Your task to perform on an android device: Open internet settings Image 0: 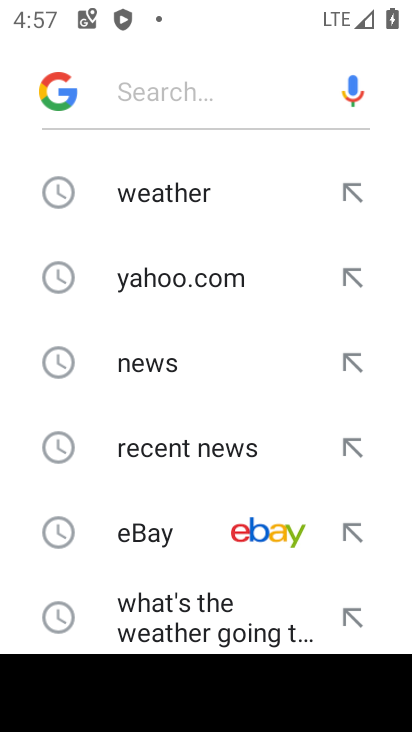
Step 0: press home button
Your task to perform on an android device: Open internet settings Image 1: 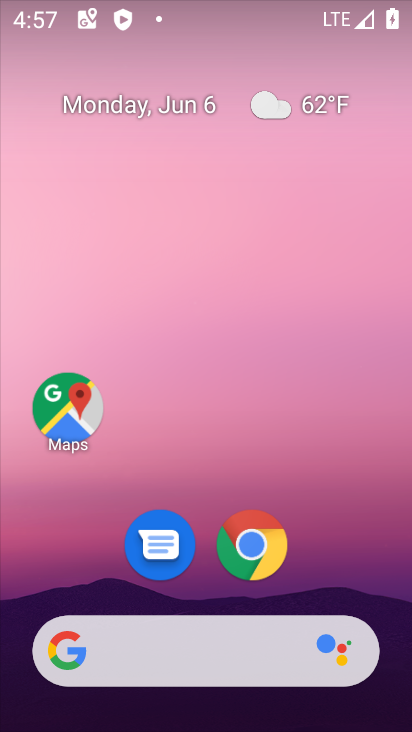
Step 1: drag from (207, 696) to (209, 99)
Your task to perform on an android device: Open internet settings Image 2: 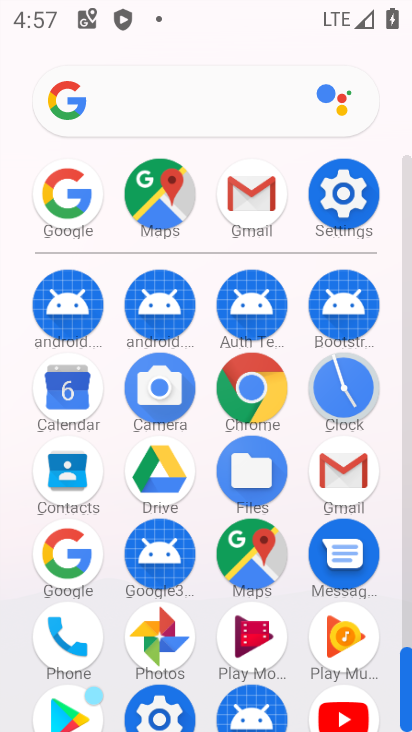
Step 2: click (354, 191)
Your task to perform on an android device: Open internet settings Image 3: 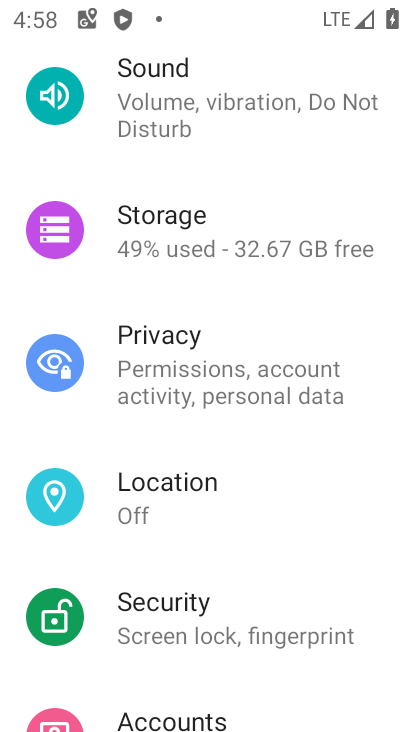
Step 3: drag from (171, 180) to (199, 596)
Your task to perform on an android device: Open internet settings Image 4: 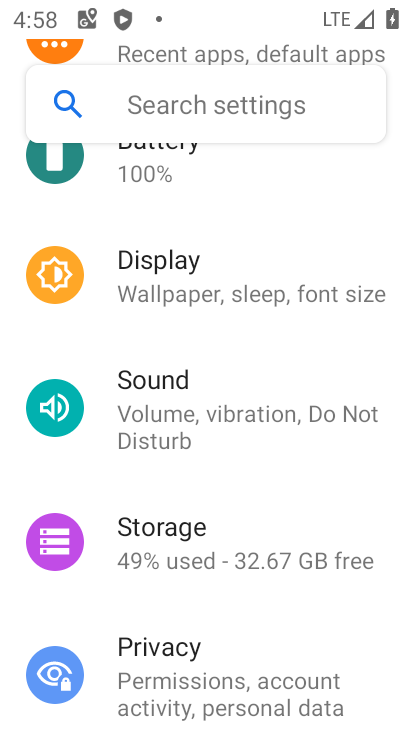
Step 4: drag from (248, 206) to (283, 613)
Your task to perform on an android device: Open internet settings Image 5: 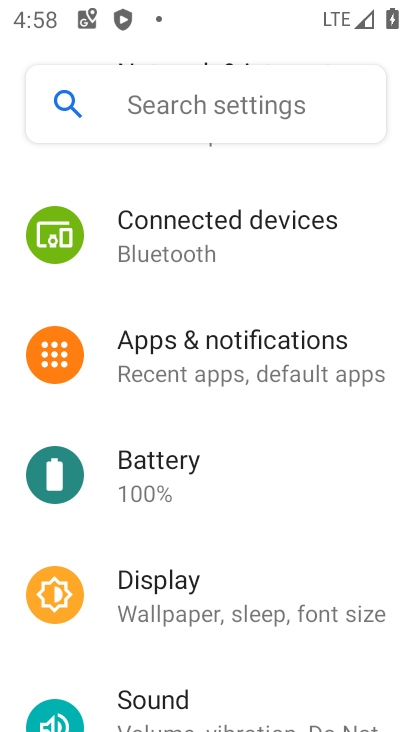
Step 5: drag from (237, 199) to (282, 625)
Your task to perform on an android device: Open internet settings Image 6: 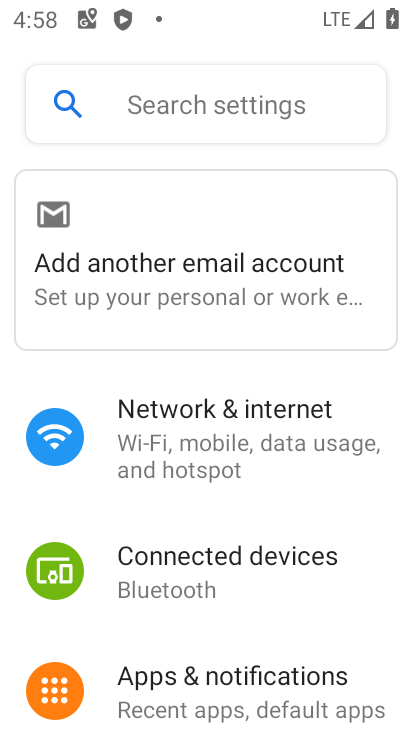
Step 6: click (199, 447)
Your task to perform on an android device: Open internet settings Image 7: 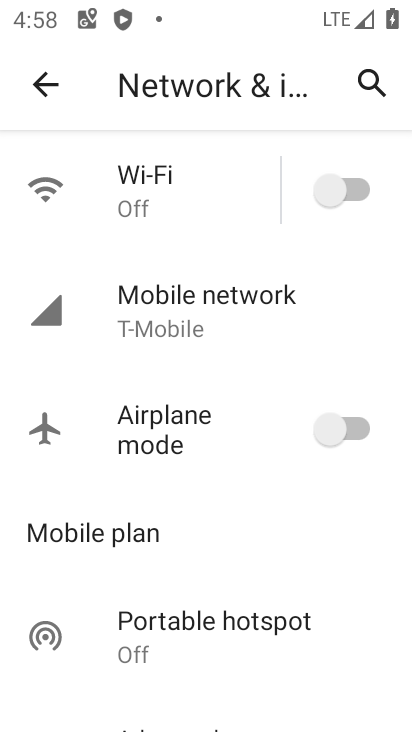
Step 7: task complete